Your task to perform on an android device: open app "Messages" (install if not already installed), go to login, and select forgot password Image 0: 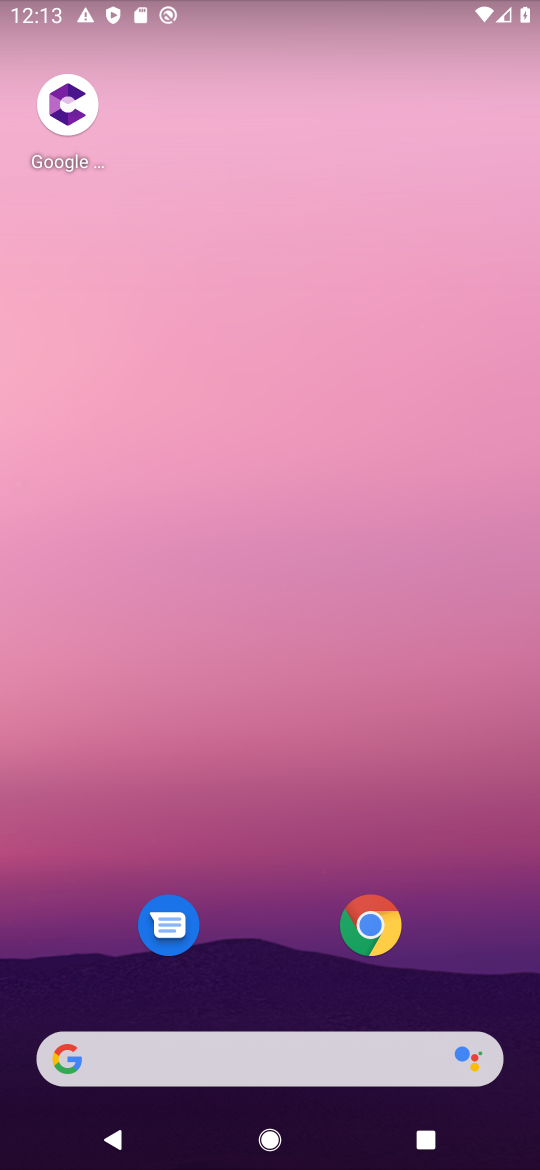
Step 0: drag from (241, 752) to (240, 33)
Your task to perform on an android device: open app "Messages" (install if not already installed), go to login, and select forgot password Image 1: 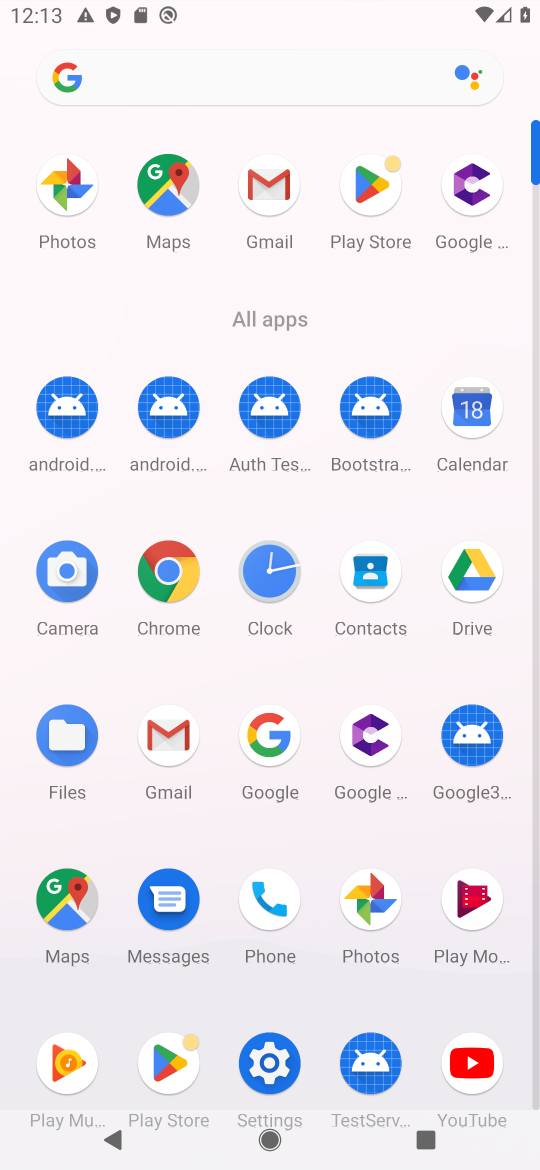
Step 1: click (165, 1078)
Your task to perform on an android device: open app "Messages" (install if not already installed), go to login, and select forgot password Image 2: 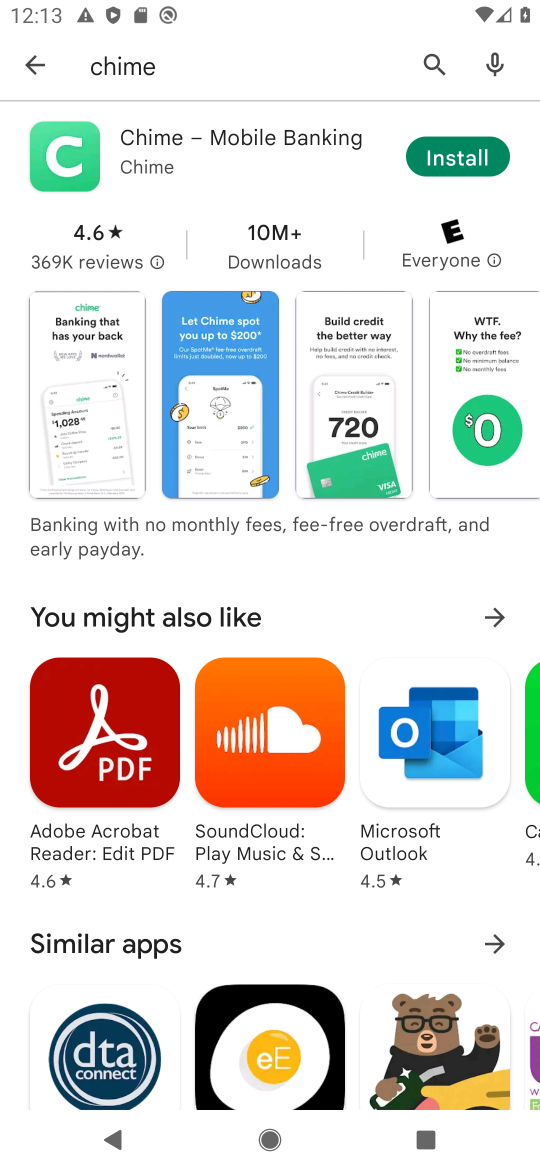
Step 2: click (38, 58)
Your task to perform on an android device: open app "Messages" (install if not already installed), go to login, and select forgot password Image 3: 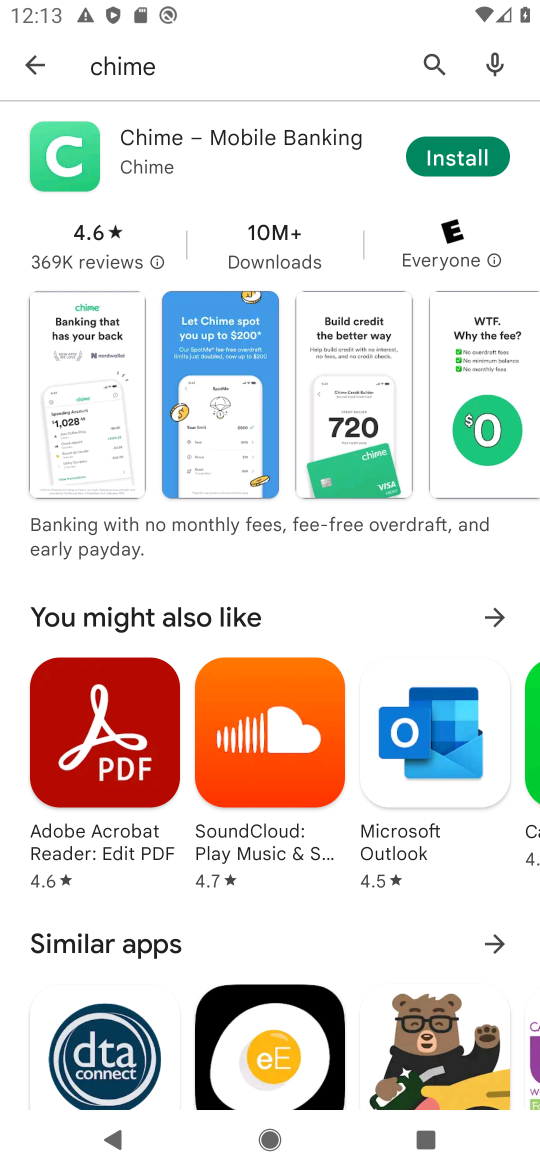
Step 3: click (39, 62)
Your task to perform on an android device: open app "Messages" (install if not already installed), go to login, and select forgot password Image 4: 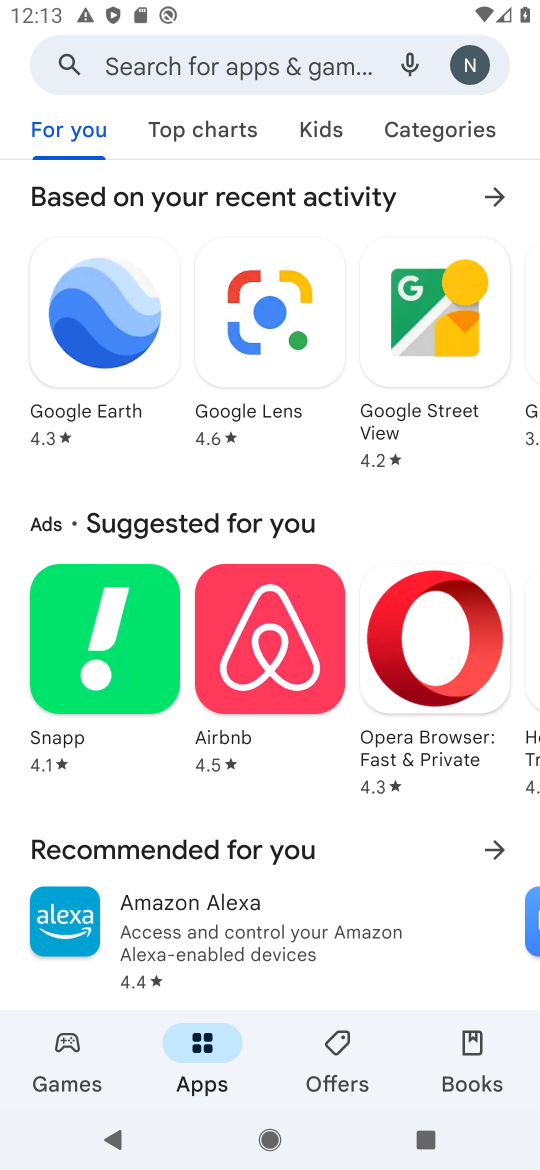
Step 4: click (208, 66)
Your task to perform on an android device: open app "Messages" (install if not already installed), go to login, and select forgot password Image 5: 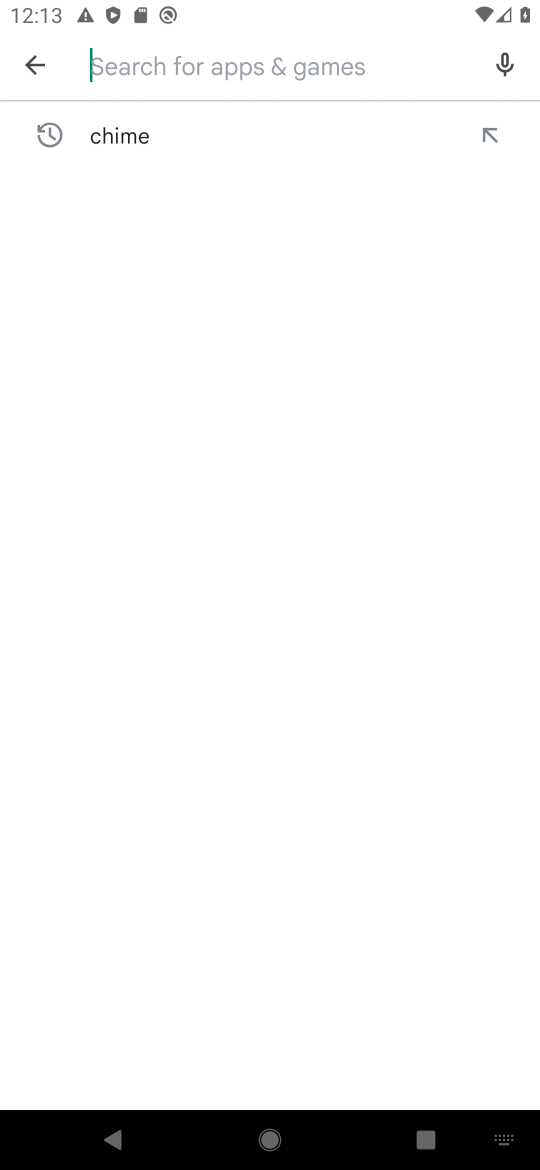
Step 5: type "Messages"
Your task to perform on an android device: open app "Messages" (install if not already installed), go to login, and select forgot password Image 6: 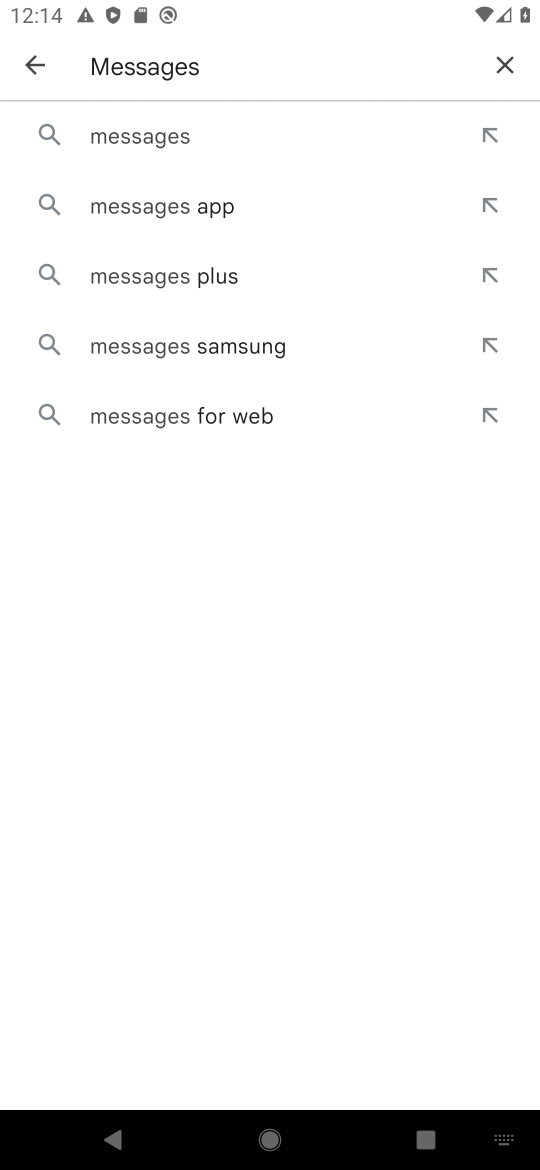
Step 6: click (162, 135)
Your task to perform on an android device: open app "Messages" (install if not already installed), go to login, and select forgot password Image 7: 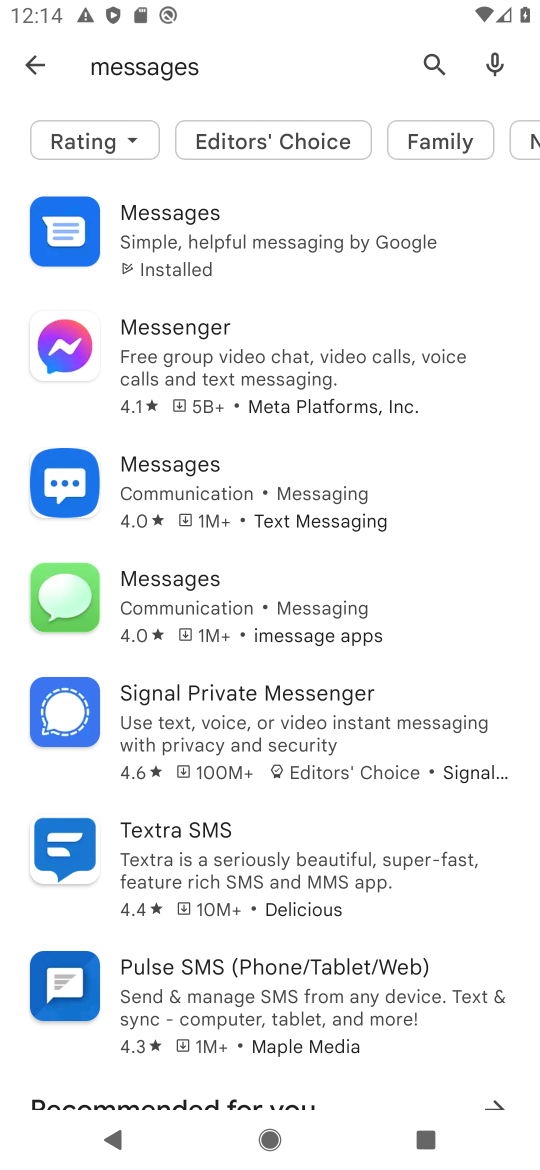
Step 7: click (160, 227)
Your task to perform on an android device: open app "Messages" (install if not already installed), go to login, and select forgot password Image 8: 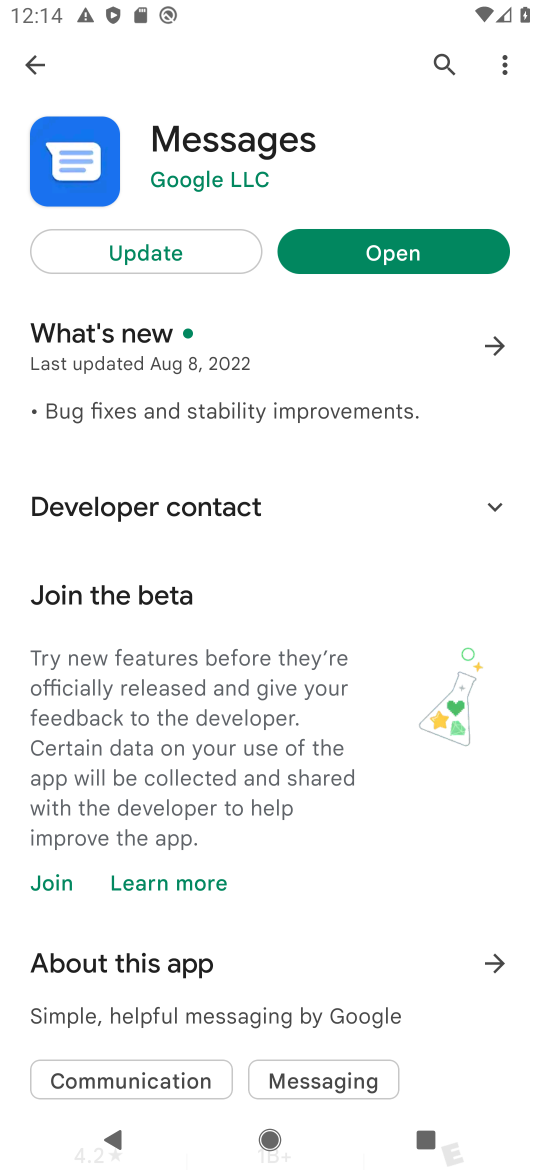
Step 8: click (375, 271)
Your task to perform on an android device: open app "Messages" (install if not already installed), go to login, and select forgot password Image 9: 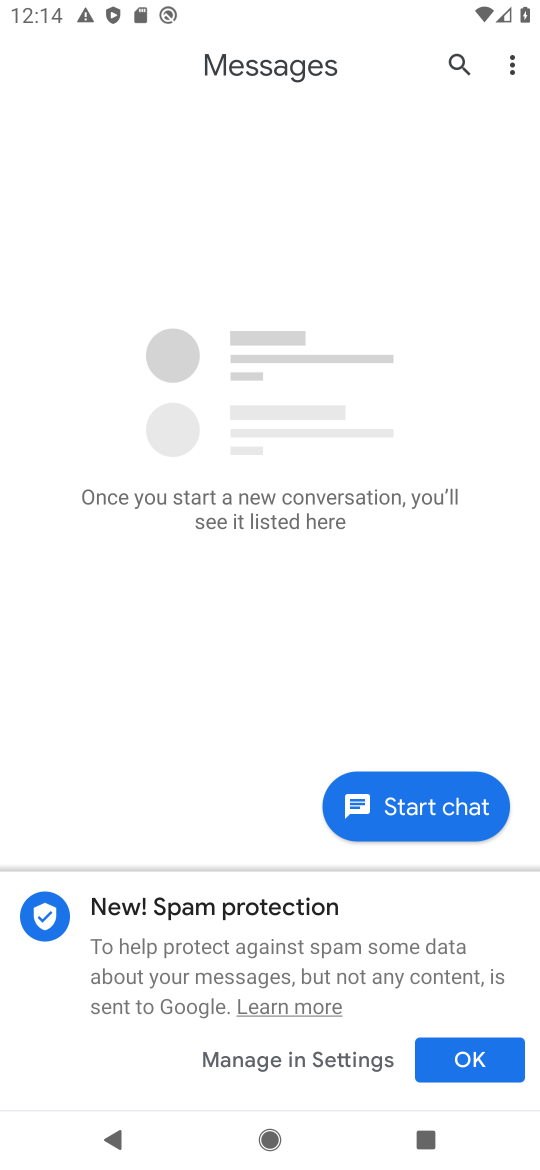
Step 9: click (456, 1059)
Your task to perform on an android device: open app "Messages" (install if not already installed), go to login, and select forgot password Image 10: 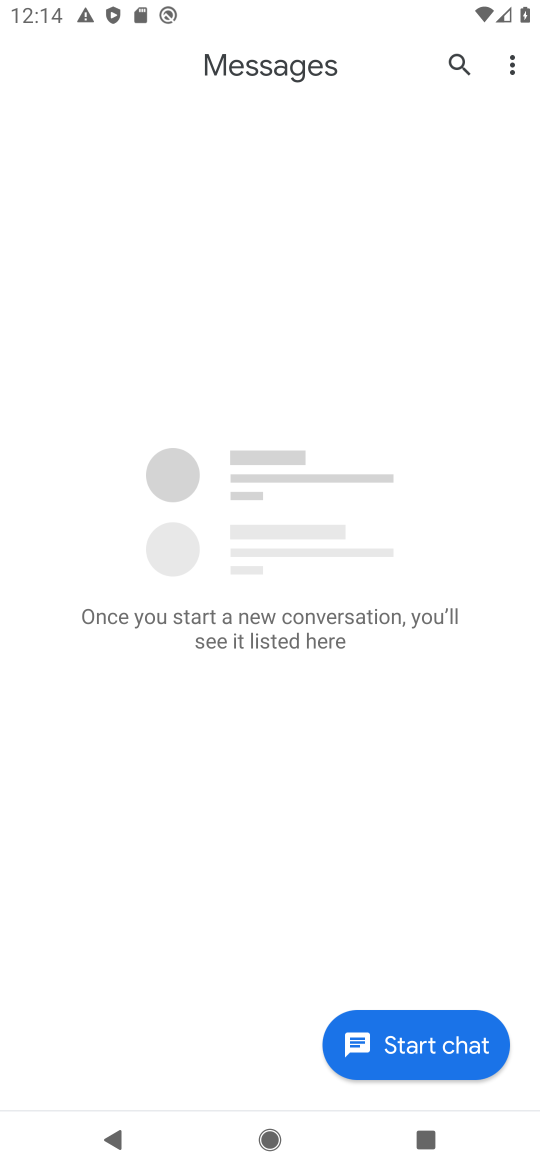
Step 10: click (456, 1059)
Your task to perform on an android device: open app "Messages" (install if not already installed), go to login, and select forgot password Image 11: 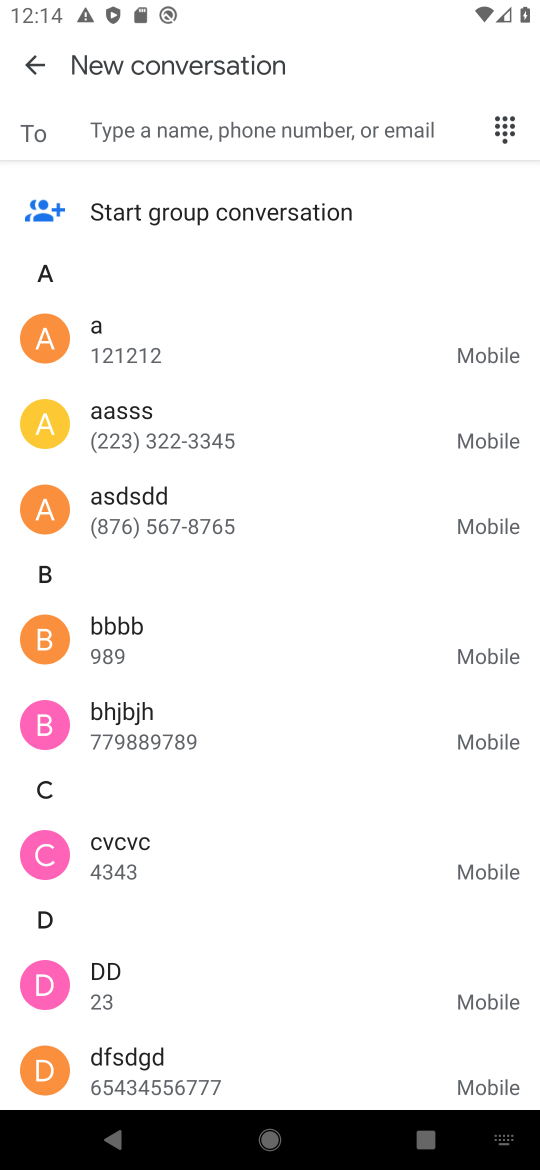
Step 11: click (28, 54)
Your task to perform on an android device: open app "Messages" (install if not already installed), go to login, and select forgot password Image 12: 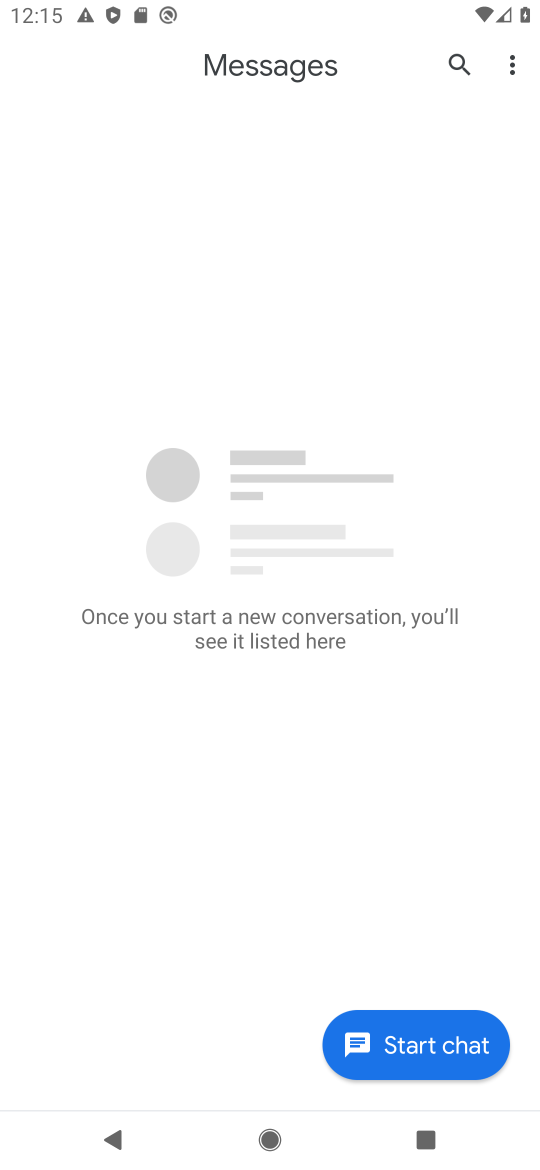
Step 12: task complete